Your task to perform on an android device: turn off location Image 0: 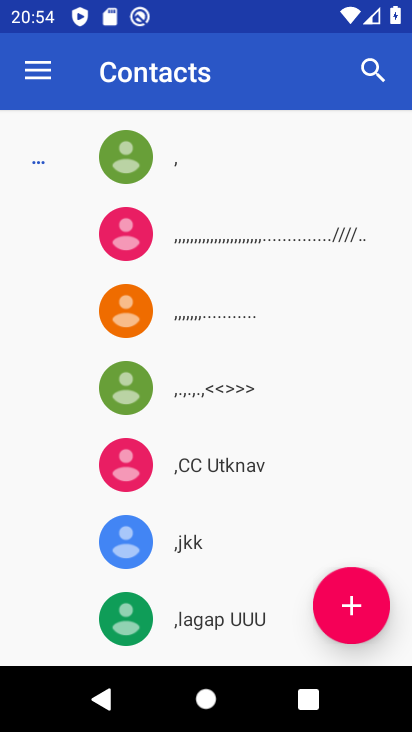
Step 0: press back button
Your task to perform on an android device: turn off location Image 1: 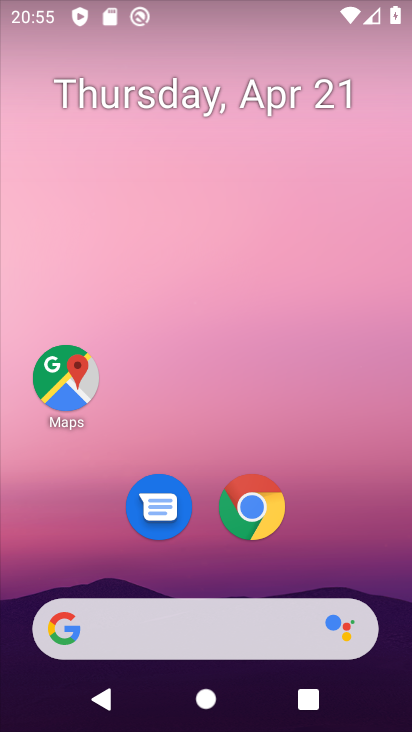
Step 1: drag from (195, 481) to (288, 0)
Your task to perform on an android device: turn off location Image 2: 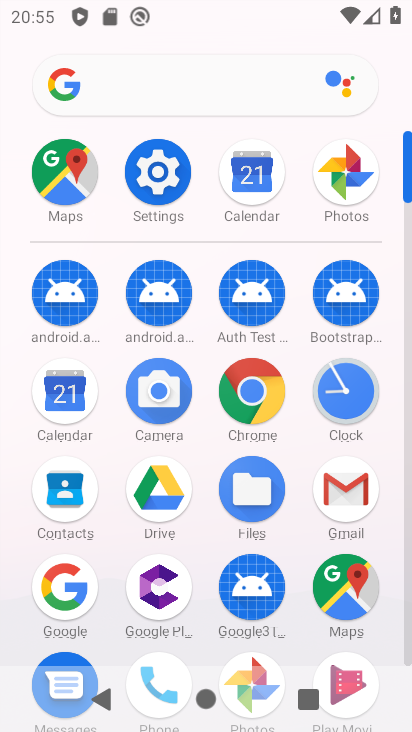
Step 2: click (153, 161)
Your task to perform on an android device: turn off location Image 3: 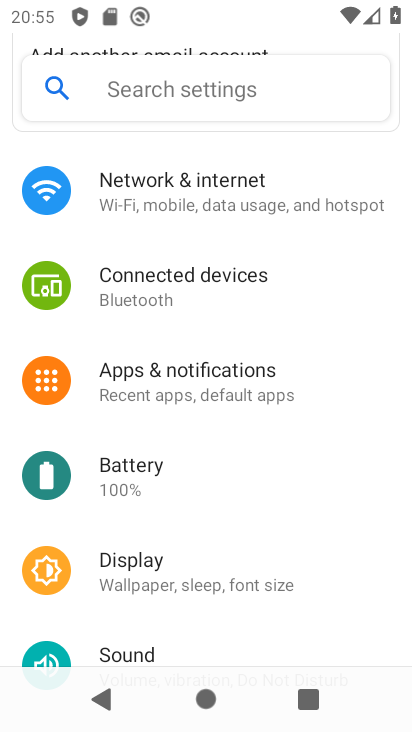
Step 3: drag from (189, 585) to (324, 37)
Your task to perform on an android device: turn off location Image 4: 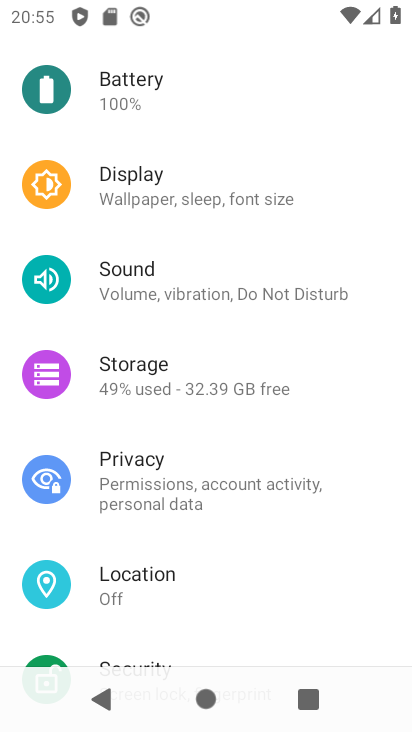
Step 4: click (122, 588)
Your task to perform on an android device: turn off location Image 5: 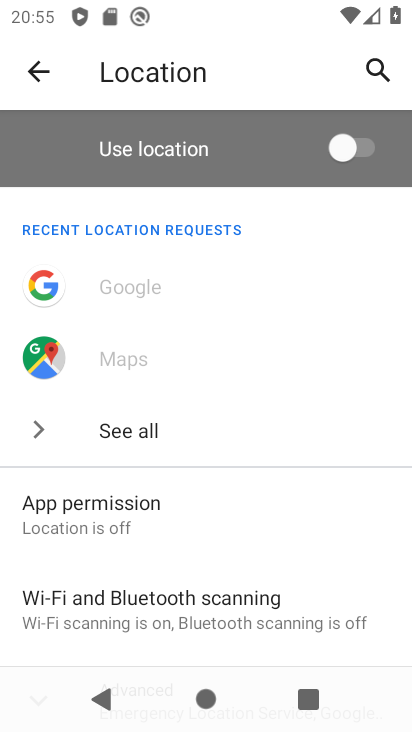
Step 5: task complete